Your task to perform on an android device: change text size in settings app Image 0: 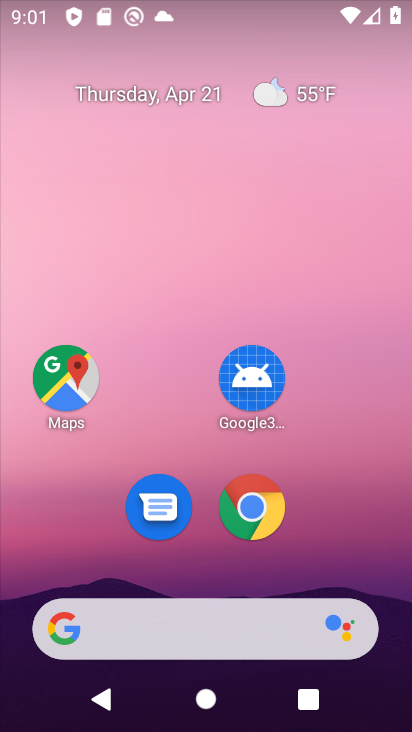
Step 0: drag from (263, 597) to (289, 239)
Your task to perform on an android device: change text size in settings app Image 1: 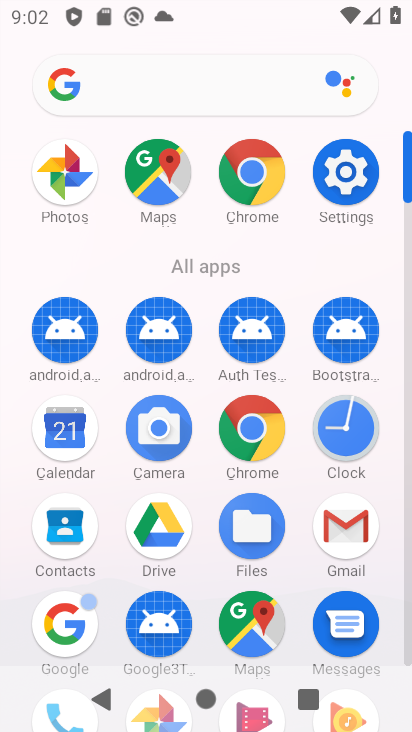
Step 1: click (337, 159)
Your task to perform on an android device: change text size in settings app Image 2: 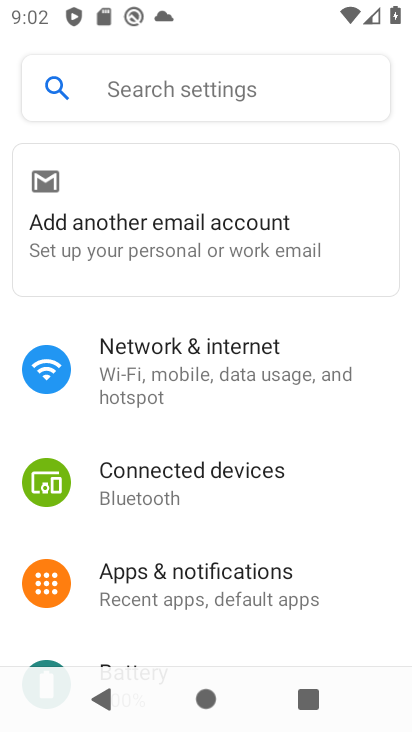
Step 2: drag from (240, 550) to (275, 22)
Your task to perform on an android device: change text size in settings app Image 3: 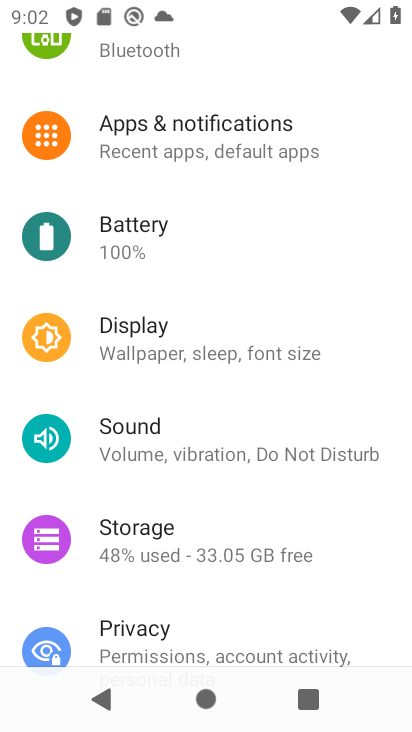
Step 3: drag from (194, 616) to (256, 128)
Your task to perform on an android device: change text size in settings app Image 4: 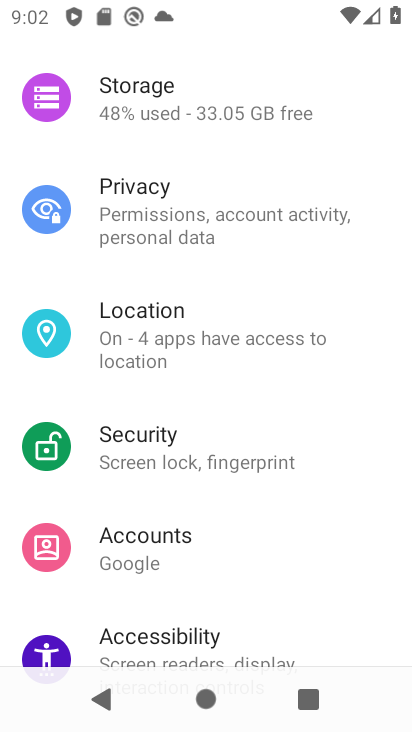
Step 4: drag from (208, 576) to (249, 134)
Your task to perform on an android device: change text size in settings app Image 5: 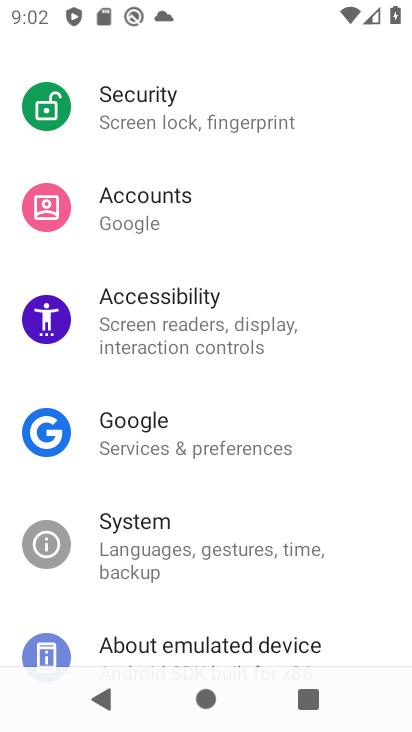
Step 5: click (191, 312)
Your task to perform on an android device: change text size in settings app Image 6: 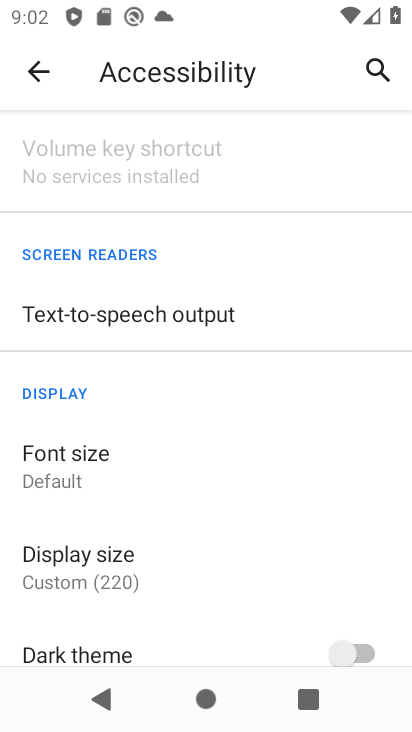
Step 6: click (95, 471)
Your task to perform on an android device: change text size in settings app Image 7: 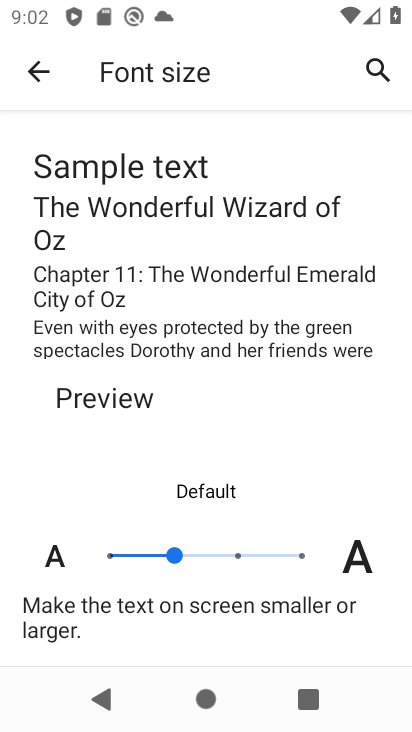
Step 7: click (234, 559)
Your task to perform on an android device: change text size in settings app Image 8: 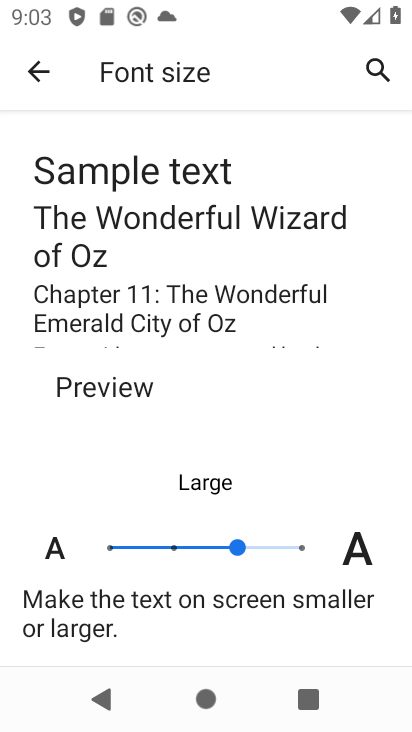
Step 8: task complete